Your task to perform on an android device: choose inbox layout in the gmail app Image 0: 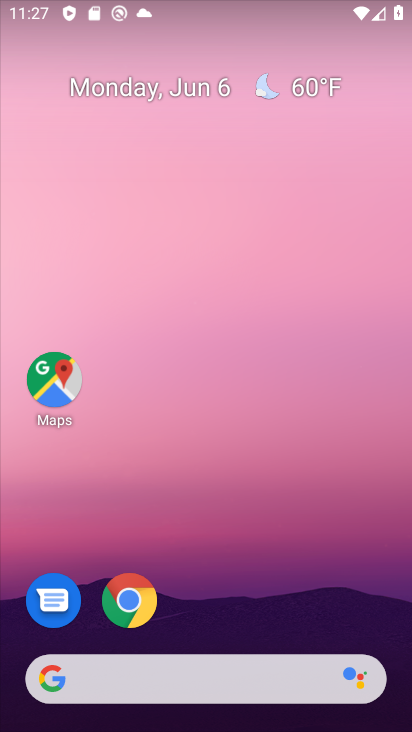
Step 0: drag from (246, 694) to (246, 149)
Your task to perform on an android device: choose inbox layout in the gmail app Image 1: 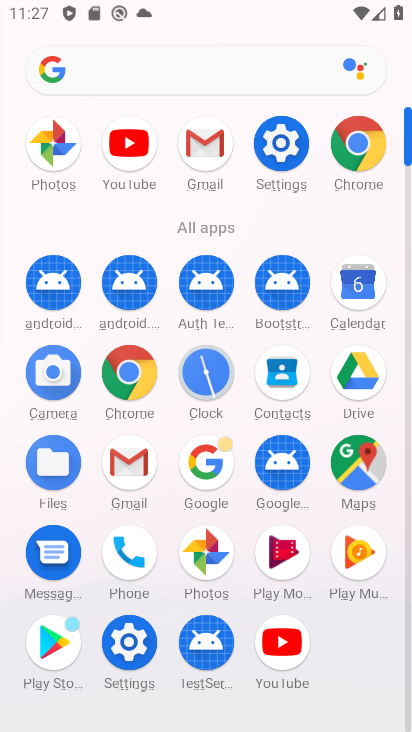
Step 1: click (133, 467)
Your task to perform on an android device: choose inbox layout in the gmail app Image 2: 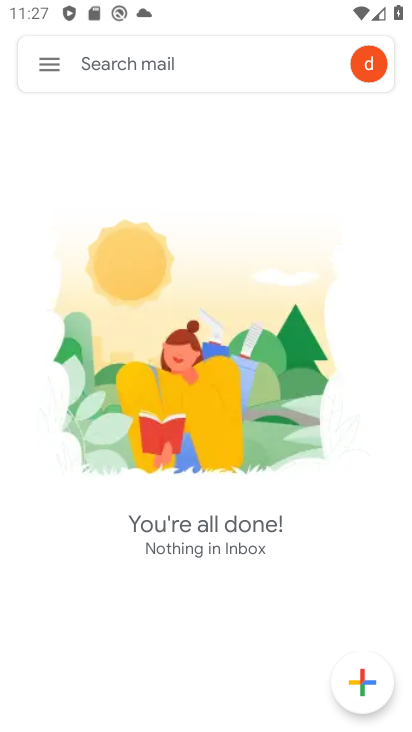
Step 2: click (44, 58)
Your task to perform on an android device: choose inbox layout in the gmail app Image 3: 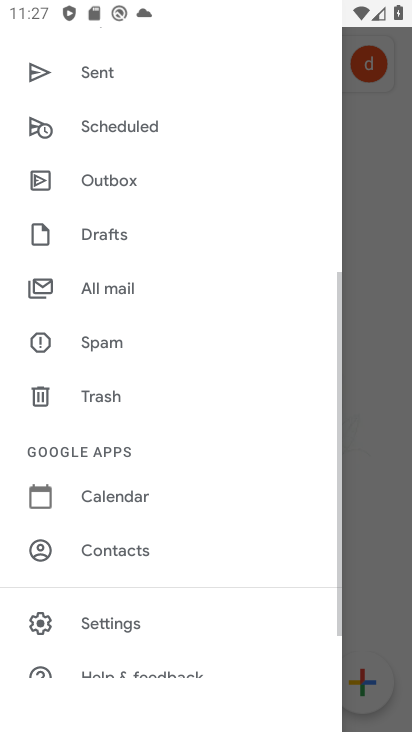
Step 3: click (118, 622)
Your task to perform on an android device: choose inbox layout in the gmail app Image 4: 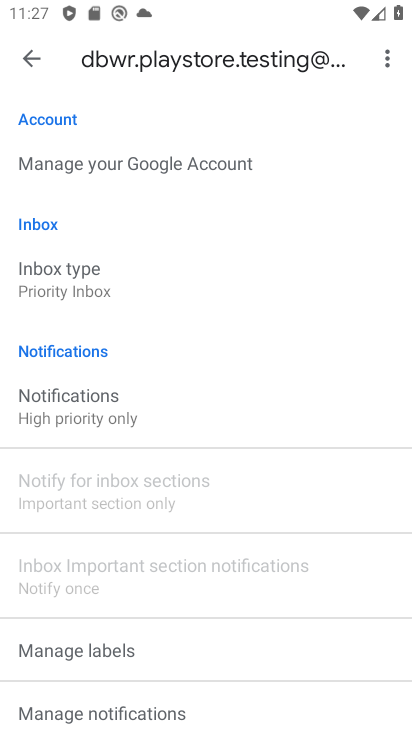
Step 4: click (71, 289)
Your task to perform on an android device: choose inbox layout in the gmail app Image 5: 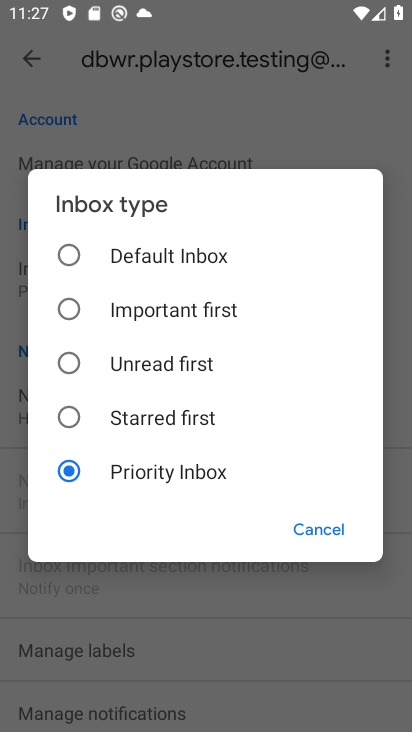
Step 5: click (80, 256)
Your task to perform on an android device: choose inbox layout in the gmail app Image 6: 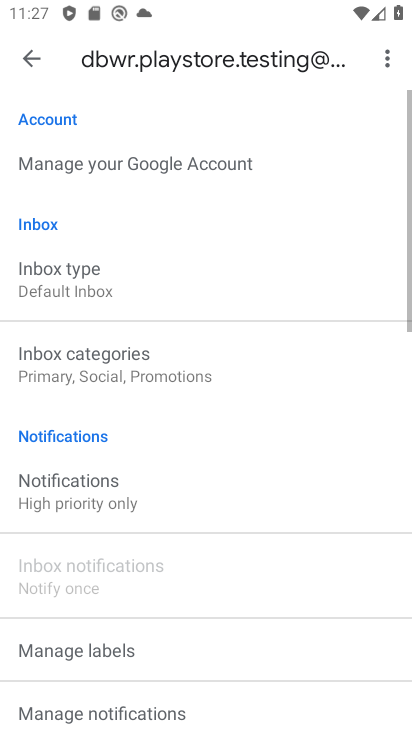
Step 6: task complete